Your task to perform on an android device: turn on notifications settings in the gmail app Image 0: 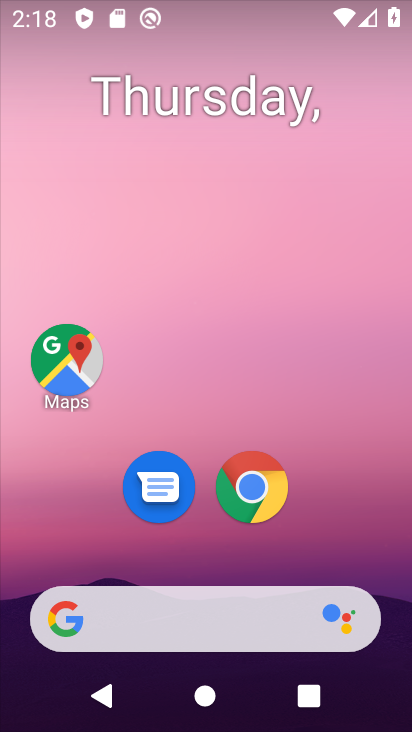
Step 0: drag from (308, 547) to (351, 228)
Your task to perform on an android device: turn on notifications settings in the gmail app Image 1: 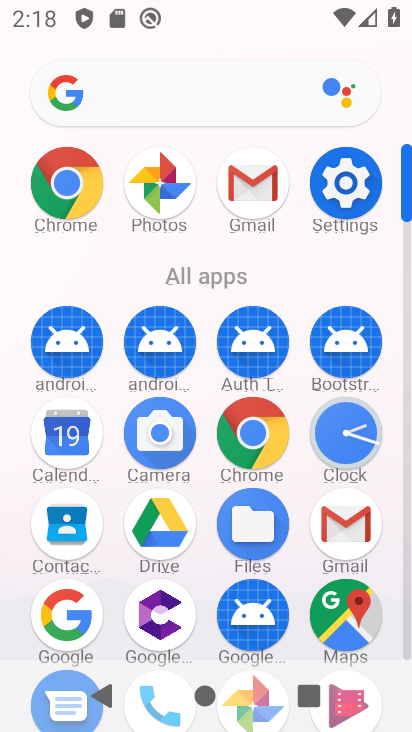
Step 1: click (265, 205)
Your task to perform on an android device: turn on notifications settings in the gmail app Image 2: 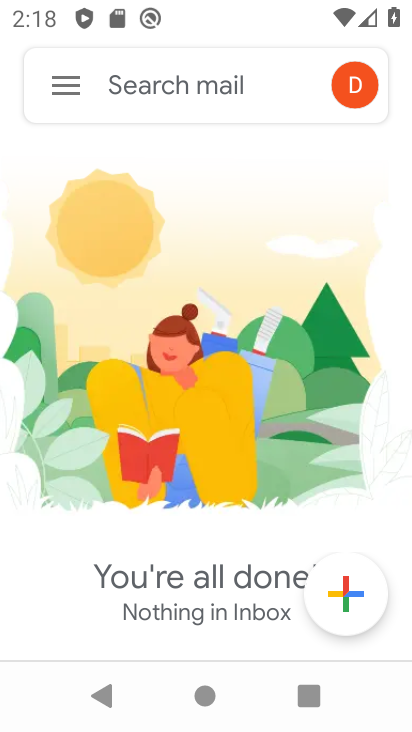
Step 2: click (74, 76)
Your task to perform on an android device: turn on notifications settings in the gmail app Image 3: 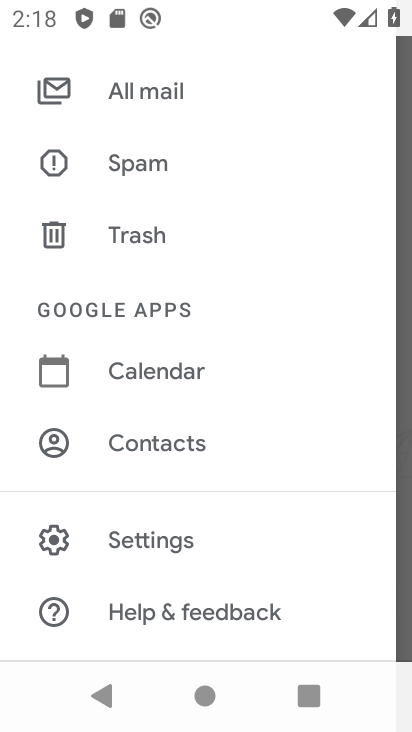
Step 3: drag from (347, 183) to (194, 528)
Your task to perform on an android device: turn on notifications settings in the gmail app Image 4: 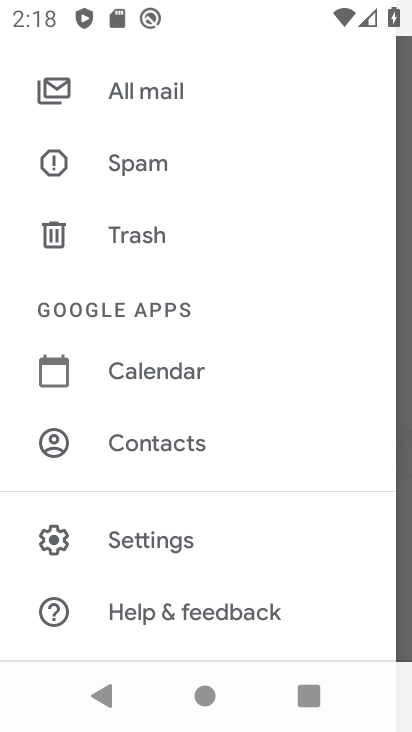
Step 4: click (191, 539)
Your task to perform on an android device: turn on notifications settings in the gmail app Image 5: 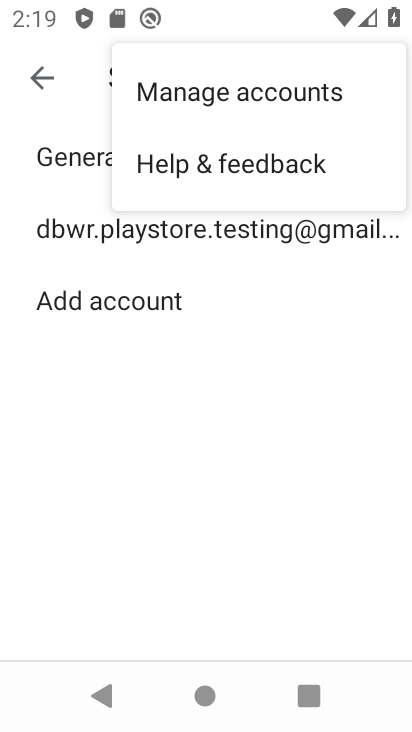
Step 5: press back button
Your task to perform on an android device: turn on notifications settings in the gmail app Image 6: 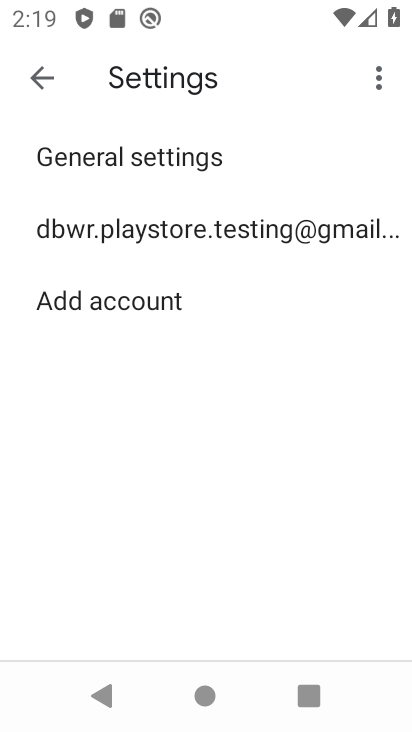
Step 6: press back button
Your task to perform on an android device: turn on notifications settings in the gmail app Image 7: 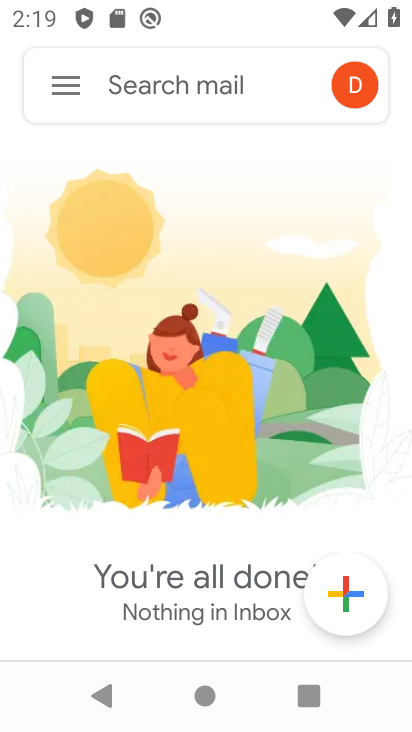
Step 7: click (56, 79)
Your task to perform on an android device: turn on notifications settings in the gmail app Image 8: 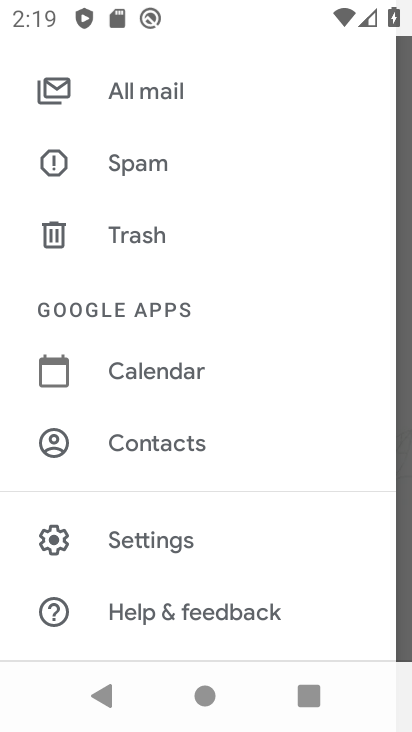
Step 8: task complete